Your task to perform on an android device: clear all cookies in the chrome app Image 0: 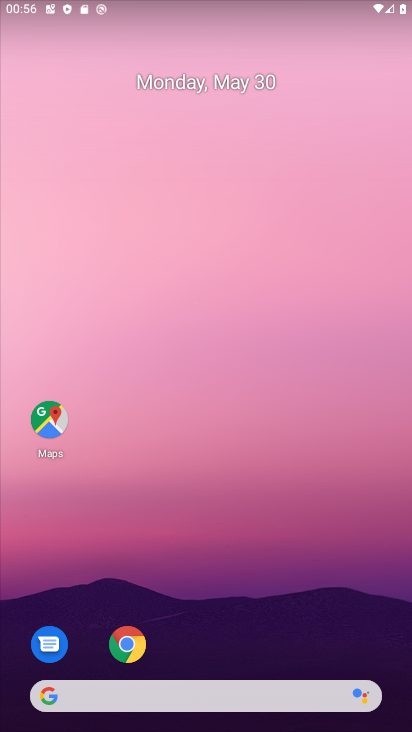
Step 0: drag from (331, 645) to (338, 243)
Your task to perform on an android device: clear all cookies in the chrome app Image 1: 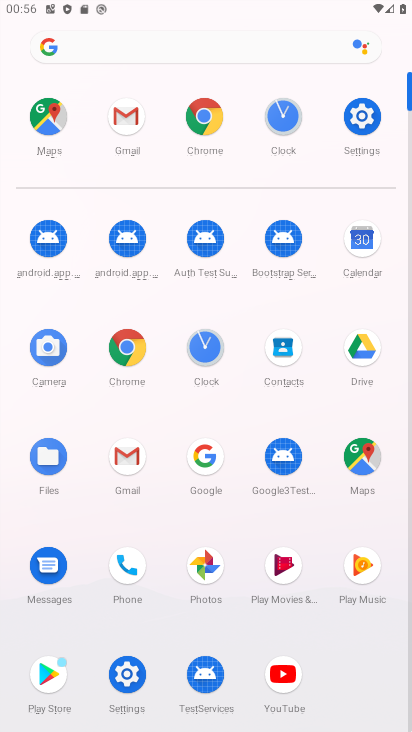
Step 1: click (219, 148)
Your task to perform on an android device: clear all cookies in the chrome app Image 2: 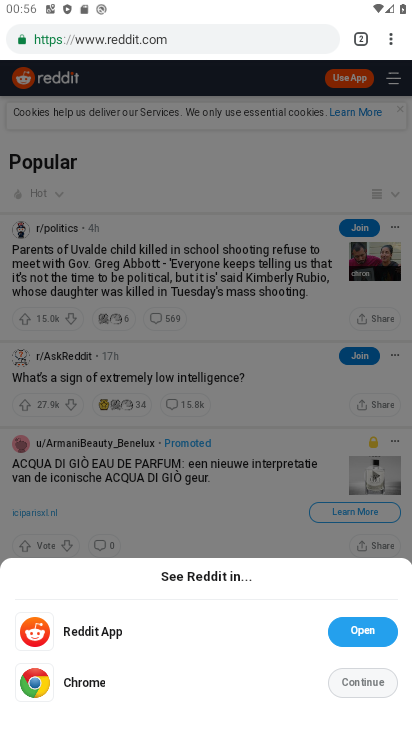
Step 2: drag from (394, 39) to (288, 219)
Your task to perform on an android device: clear all cookies in the chrome app Image 3: 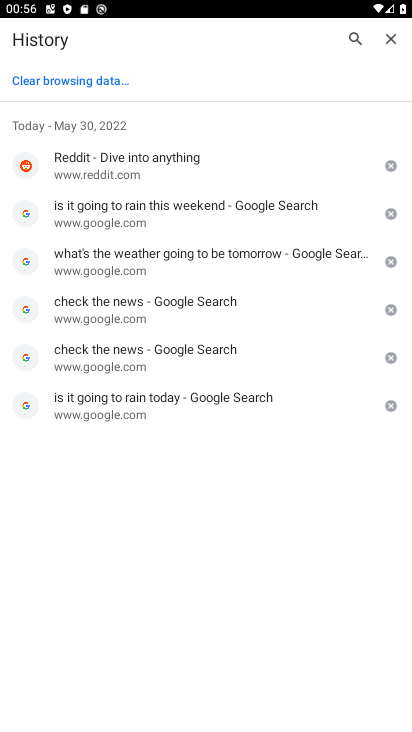
Step 3: click (53, 76)
Your task to perform on an android device: clear all cookies in the chrome app Image 4: 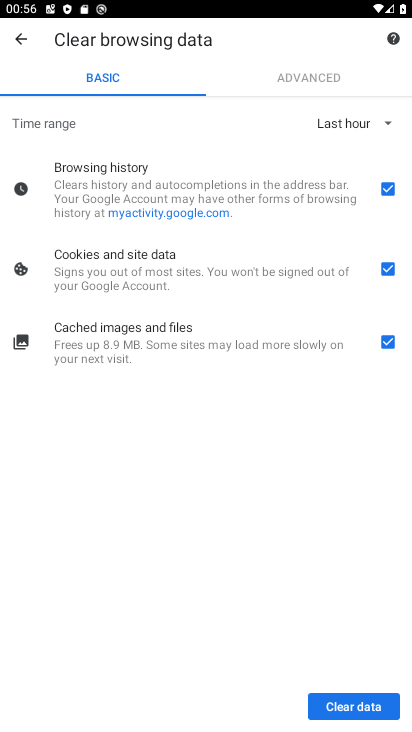
Step 4: click (361, 708)
Your task to perform on an android device: clear all cookies in the chrome app Image 5: 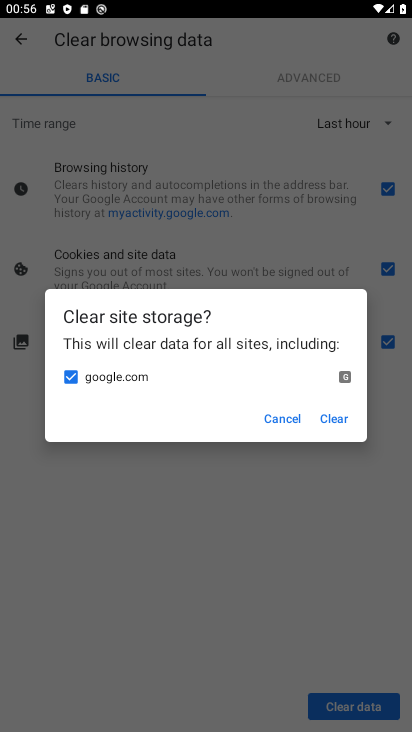
Step 5: click (325, 416)
Your task to perform on an android device: clear all cookies in the chrome app Image 6: 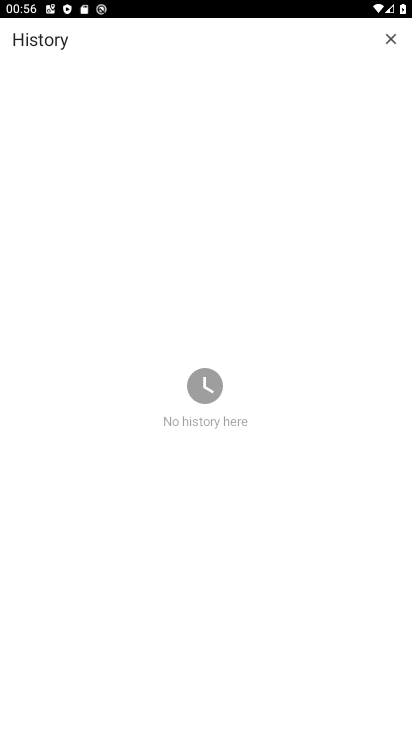
Step 6: task complete